Your task to perform on an android device: toggle airplane mode Image 0: 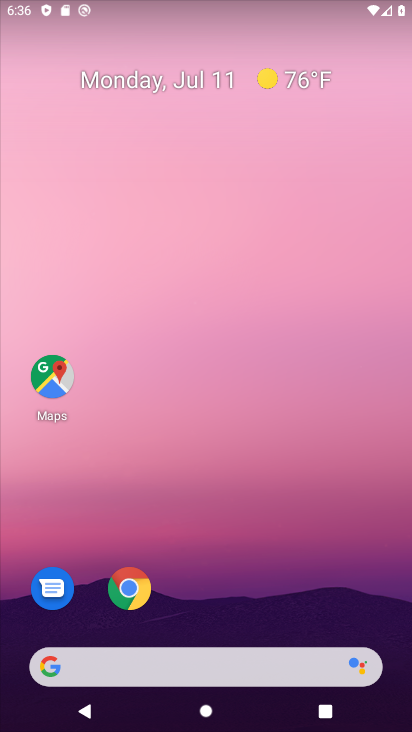
Step 0: drag from (279, 569) to (259, 166)
Your task to perform on an android device: toggle airplane mode Image 1: 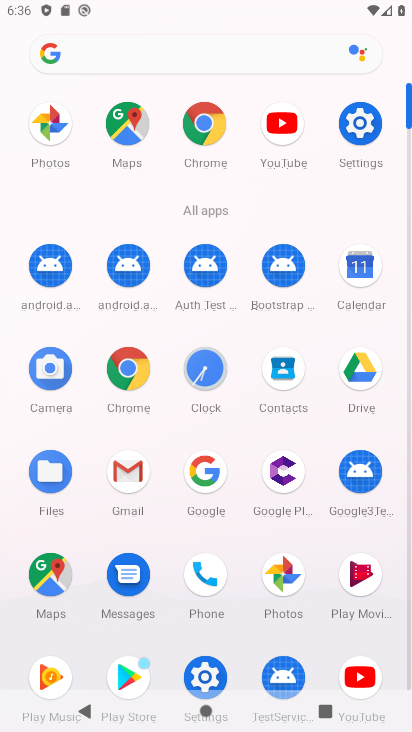
Step 1: click (362, 122)
Your task to perform on an android device: toggle airplane mode Image 2: 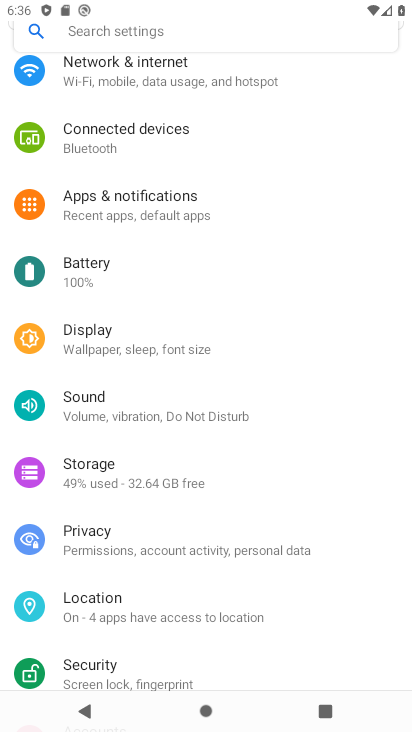
Step 2: click (123, 73)
Your task to perform on an android device: toggle airplane mode Image 3: 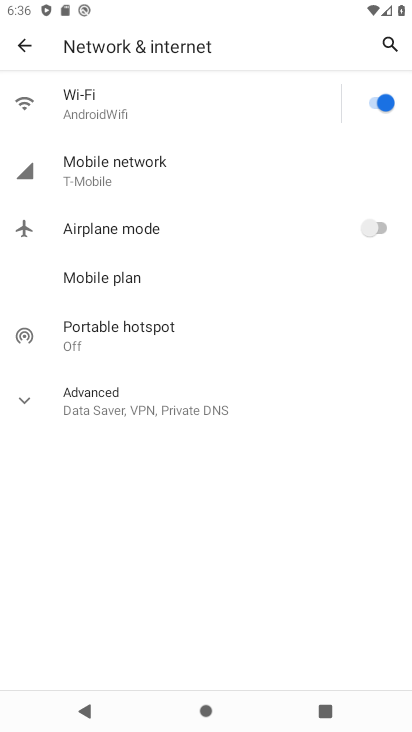
Step 3: click (375, 224)
Your task to perform on an android device: toggle airplane mode Image 4: 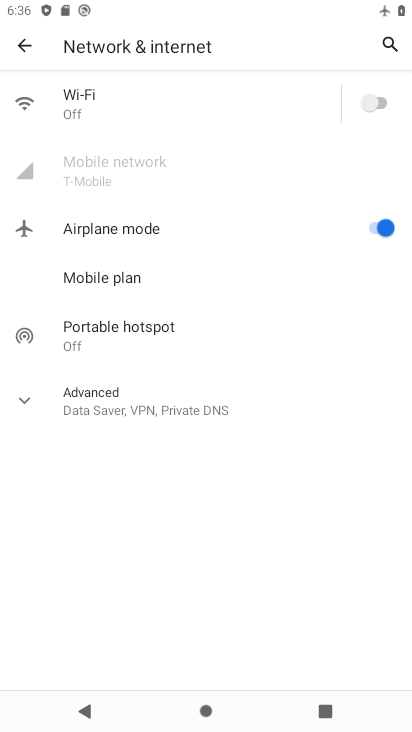
Step 4: task complete